Your task to perform on an android device: Search for Mexican restaurants on Maps Image 0: 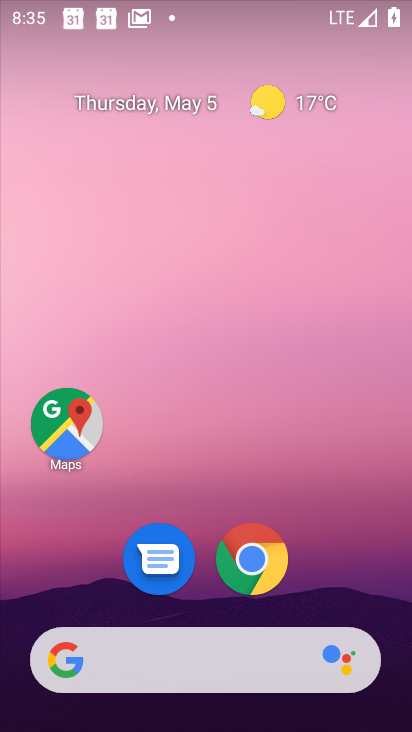
Step 0: click (66, 425)
Your task to perform on an android device: Search for Mexican restaurants on Maps Image 1: 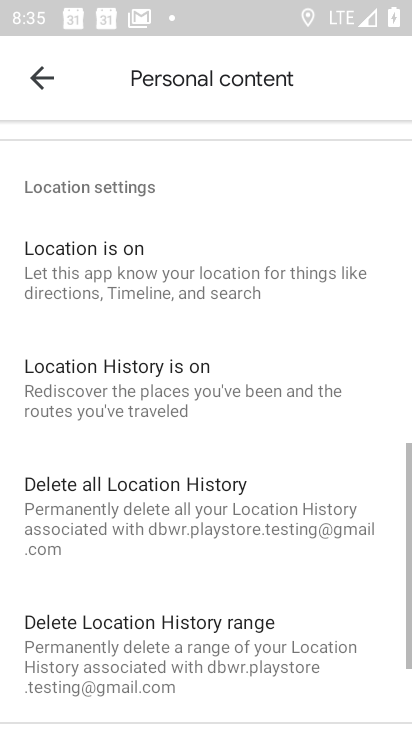
Step 1: click (36, 86)
Your task to perform on an android device: Search for Mexican restaurants on Maps Image 2: 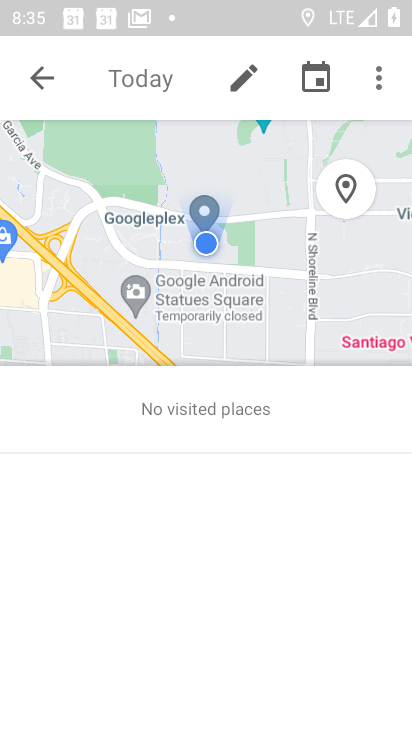
Step 2: click (43, 83)
Your task to perform on an android device: Search for Mexican restaurants on Maps Image 3: 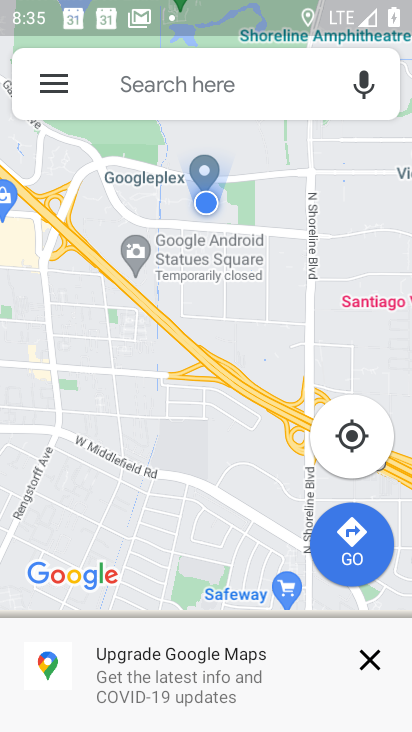
Step 3: click (102, 94)
Your task to perform on an android device: Search for Mexican restaurants on Maps Image 4: 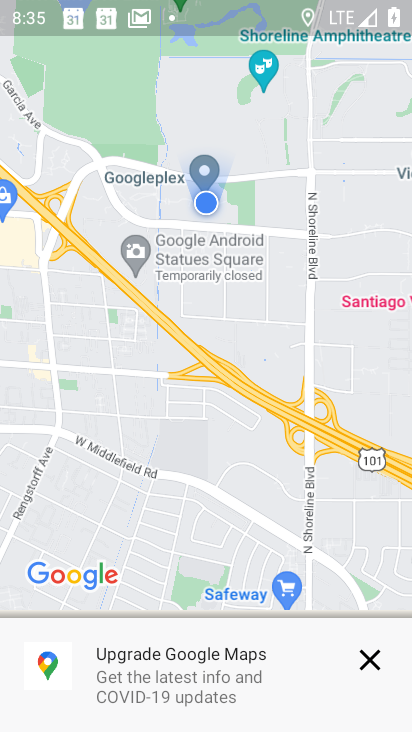
Step 4: click (120, 60)
Your task to perform on an android device: Search for Mexican restaurants on Maps Image 5: 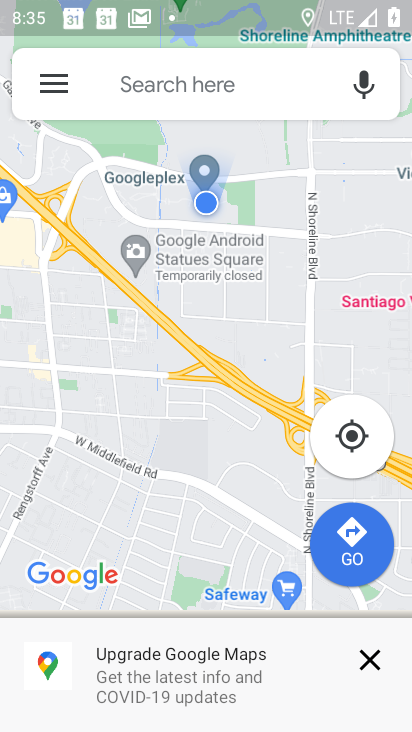
Step 5: click (131, 89)
Your task to perform on an android device: Search for Mexican restaurants on Maps Image 6: 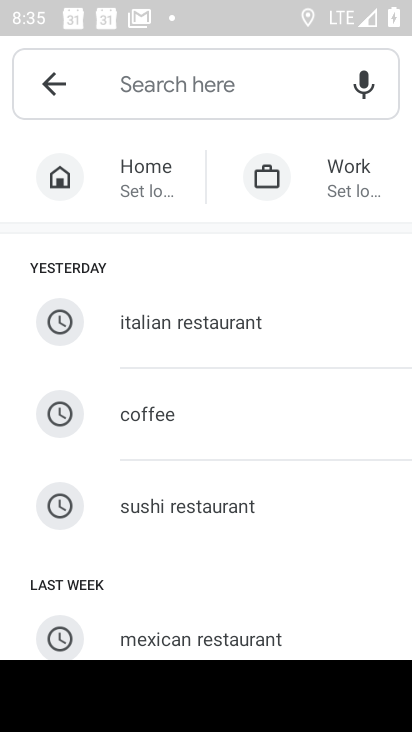
Step 6: type "mexican restaurant"
Your task to perform on an android device: Search for Mexican restaurants on Maps Image 7: 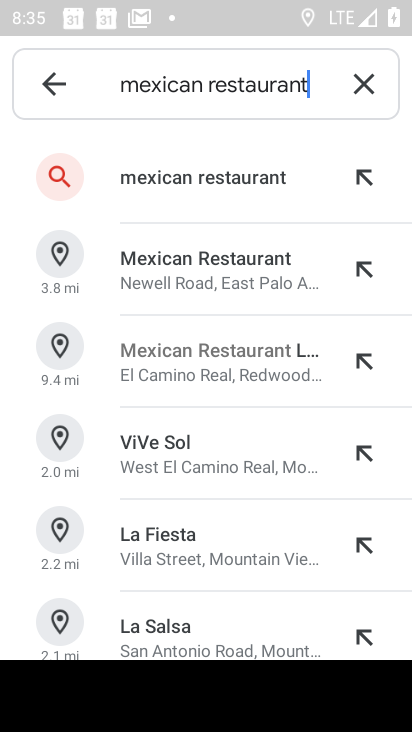
Step 7: click (182, 181)
Your task to perform on an android device: Search for Mexican restaurants on Maps Image 8: 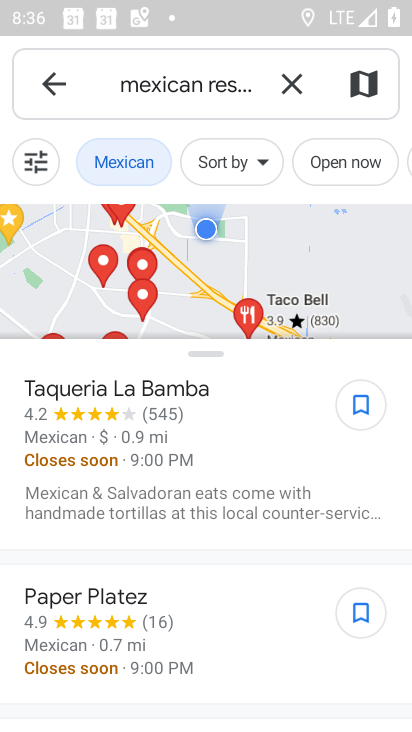
Step 8: task complete